Your task to perform on an android device: What is the recent news? Image 0: 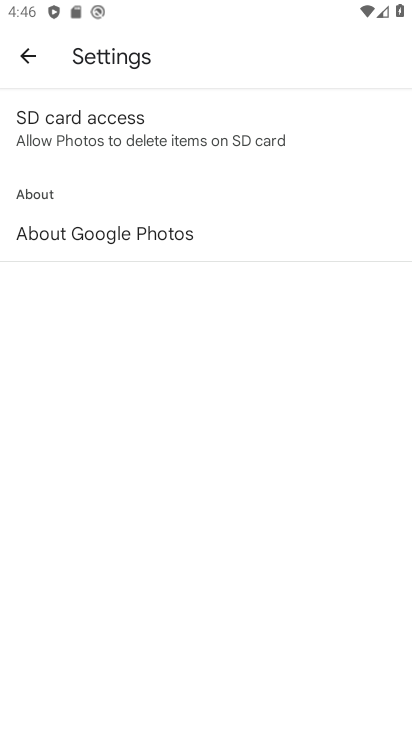
Step 0: press back button
Your task to perform on an android device: What is the recent news? Image 1: 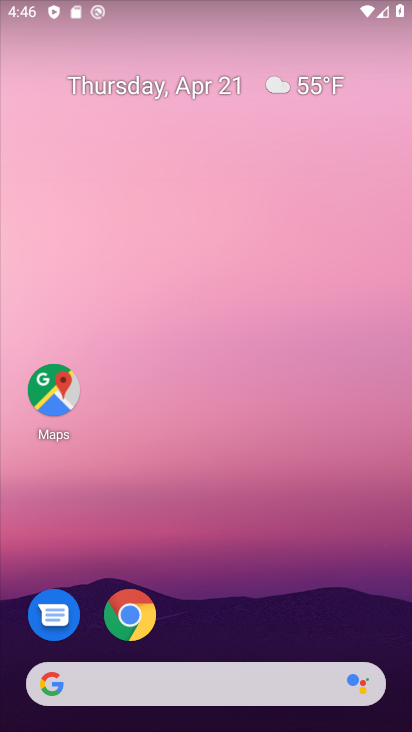
Step 1: click (182, 682)
Your task to perform on an android device: What is the recent news? Image 2: 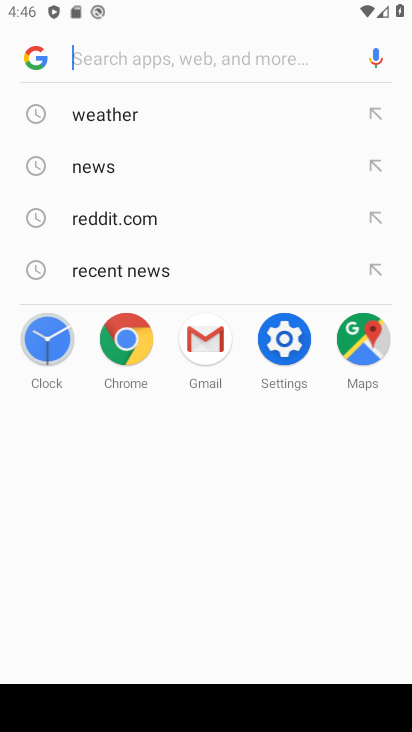
Step 2: click (111, 170)
Your task to perform on an android device: What is the recent news? Image 3: 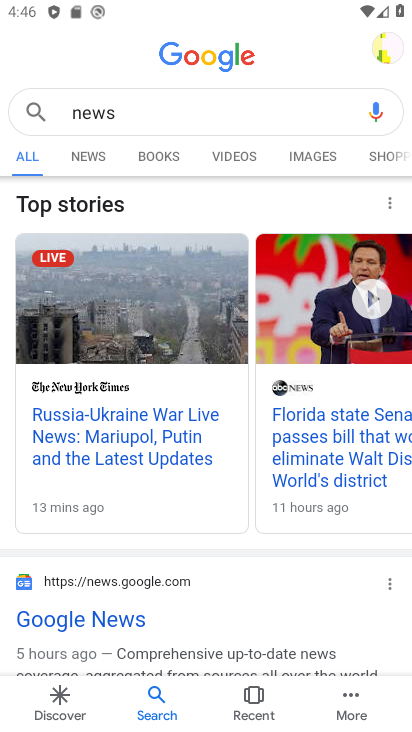
Step 3: task complete